Your task to perform on an android device: make emails show in primary in the gmail app Image 0: 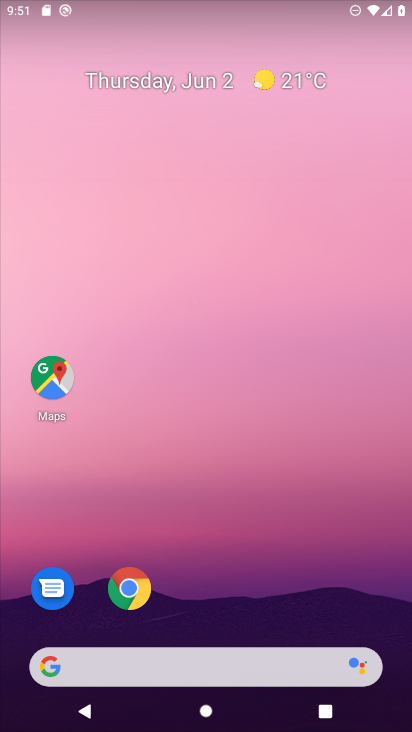
Step 0: drag from (156, 531) to (222, 214)
Your task to perform on an android device: make emails show in primary in the gmail app Image 1: 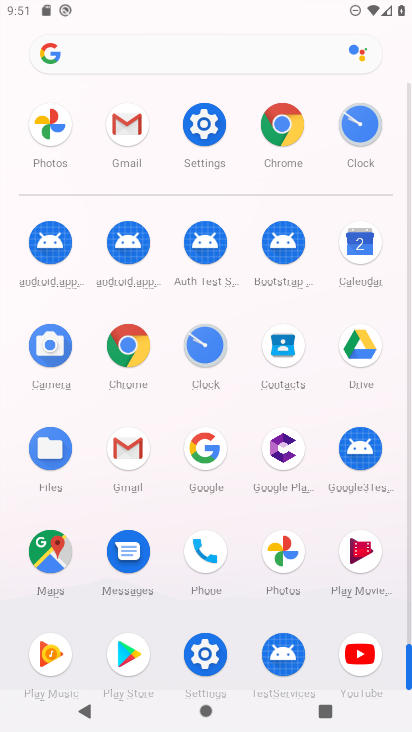
Step 1: click (135, 455)
Your task to perform on an android device: make emails show in primary in the gmail app Image 2: 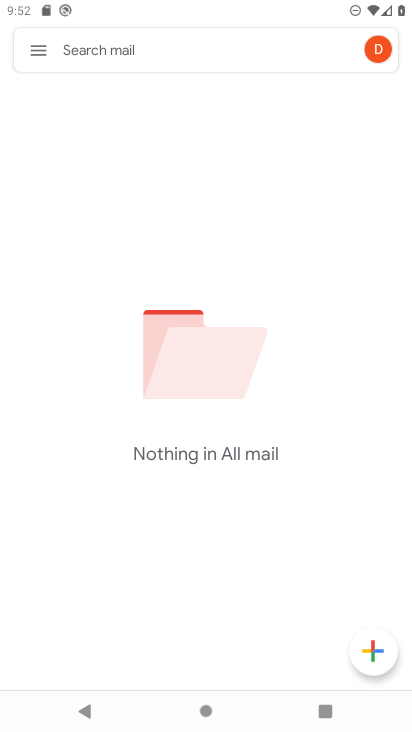
Step 2: click (36, 61)
Your task to perform on an android device: make emails show in primary in the gmail app Image 3: 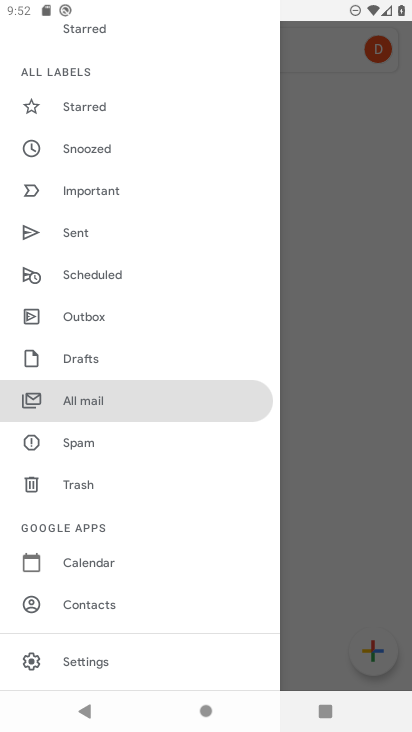
Step 3: drag from (189, 445) to (227, 170)
Your task to perform on an android device: make emails show in primary in the gmail app Image 4: 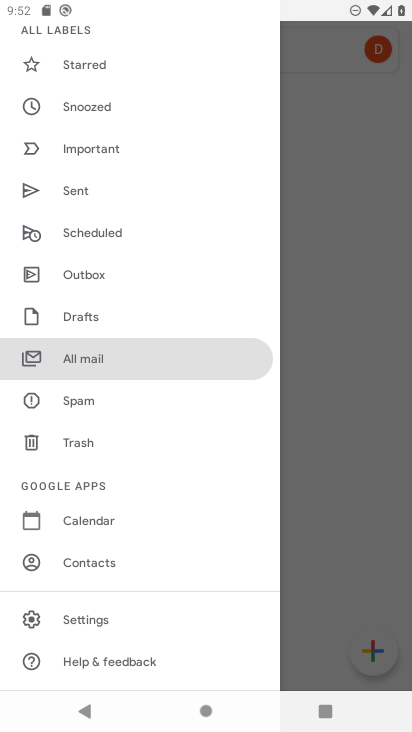
Step 4: click (121, 348)
Your task to perform on an android device: make emails show in primary in the gmail app Image 5: 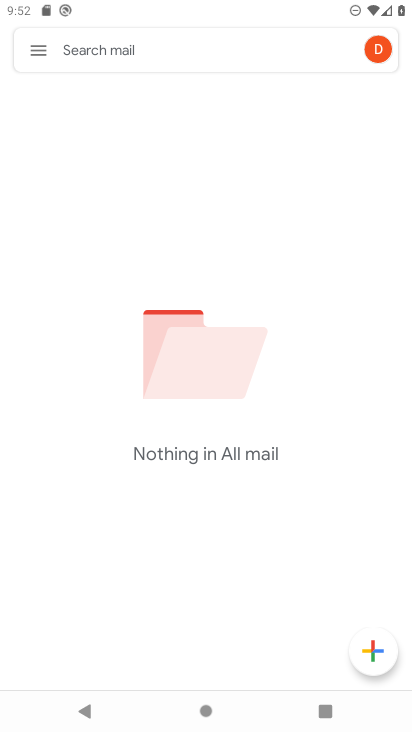
Step 5: task complete